Your task to perform on an android device: turn on the 24-hour format for clock Image 0: 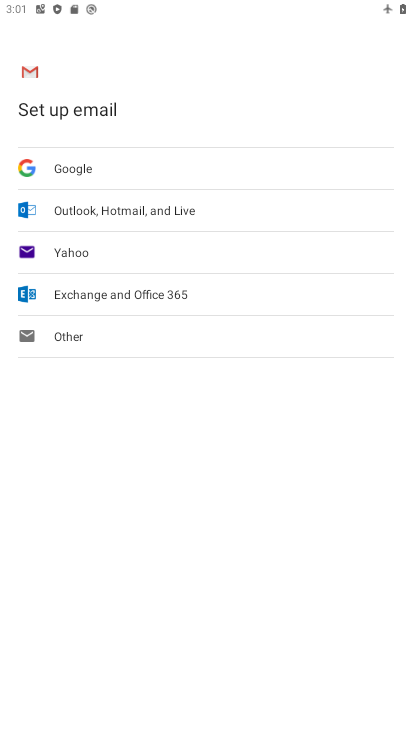
Step 0: press home button
Your task to perform on an android device: turn on the 24-hour format for clock Image 1: 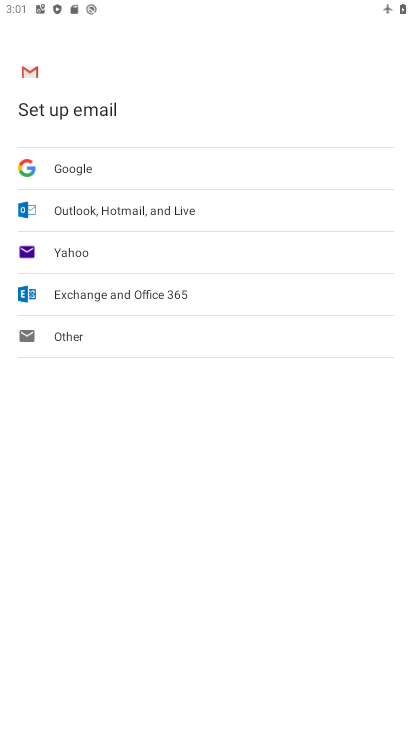
Step 1: press home button
Your task to perform on an android device: turn on the 24-hour format for clock Image 2: 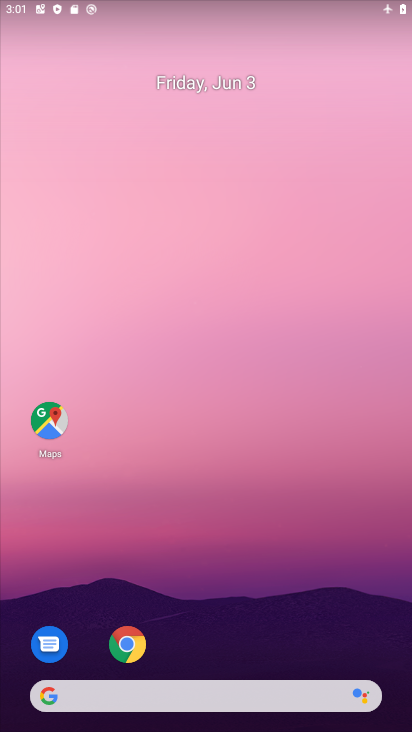
Step 2: drag from (234, 651) to (256, 399)
Your task to perform on an android device: turn on the 24-hour format for clock Image 3: 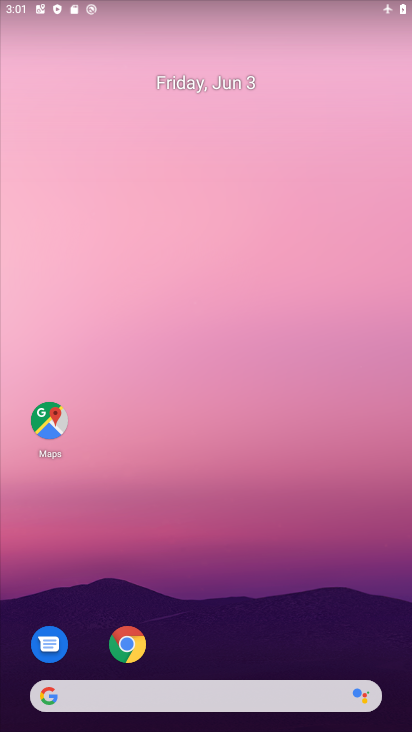
Step 3: drag from (222, 655) to (244, 259)
Your task to perform on an android device: turn on the 24-hour format for clock Image 4: 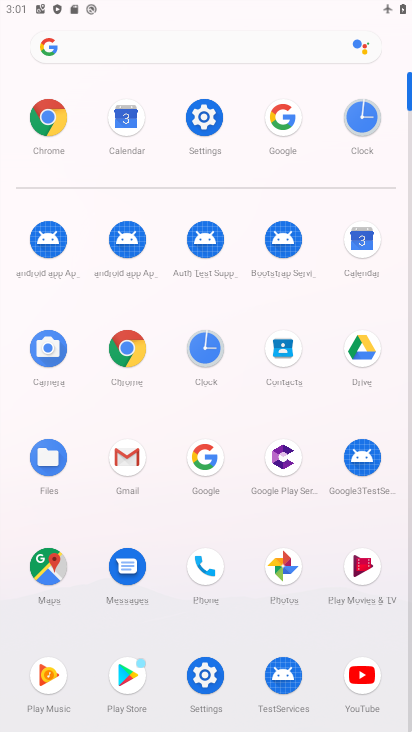
Step 4: click (358, 124)
Your task to perform on an android device: turn on the 24-hour format for clock Image 5: 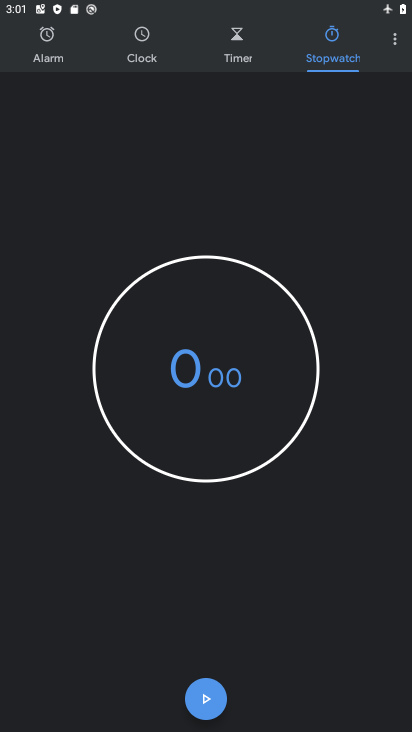
Step 5: click (388, 43)
Your task to perform on an android device: turn on the 24-hour format for clock Image 6: 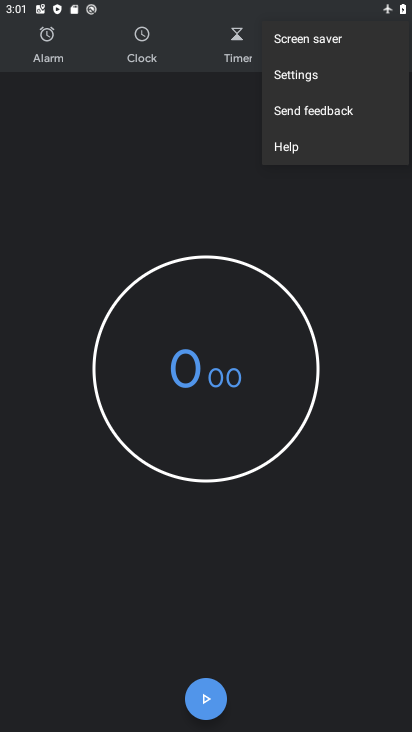
Step 6: click (350, 80)
Your task to perform on an android device: turn on the 24-hour format for clock Image 7: 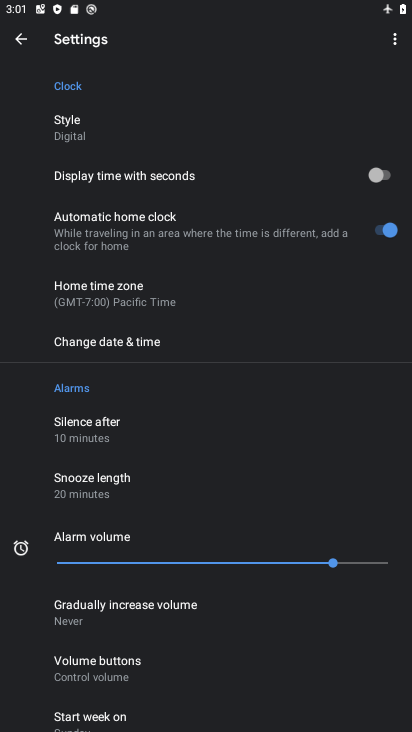
Step 7: click (216, 338)
Your task to perform on an android device: turn on the 24-hour format for clock Image 8: 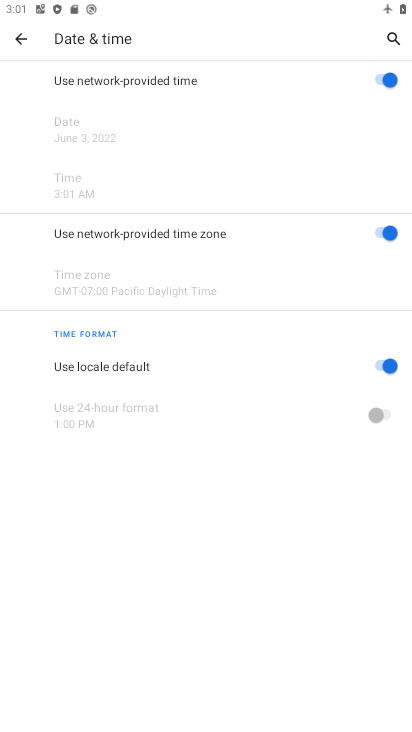
Step 8: drag from (312, 628) to (387, 416)
Your task to perform on an android device: turn on the 24-hour format for clock Image 9: 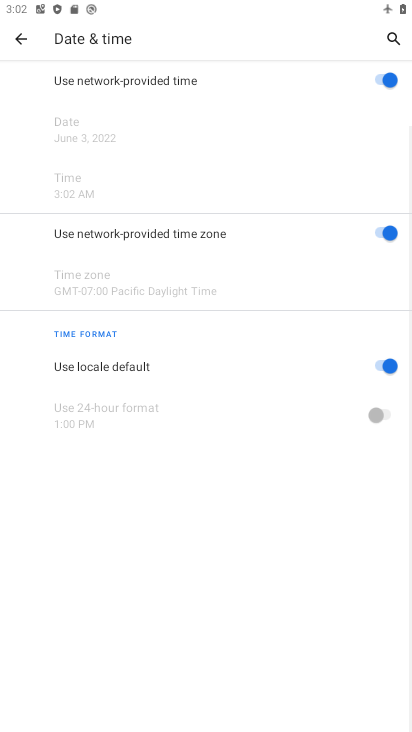
Step 9: click (387, 410)
Your task to perform on an android device: turn on the 24-hour format for clock Image 10: 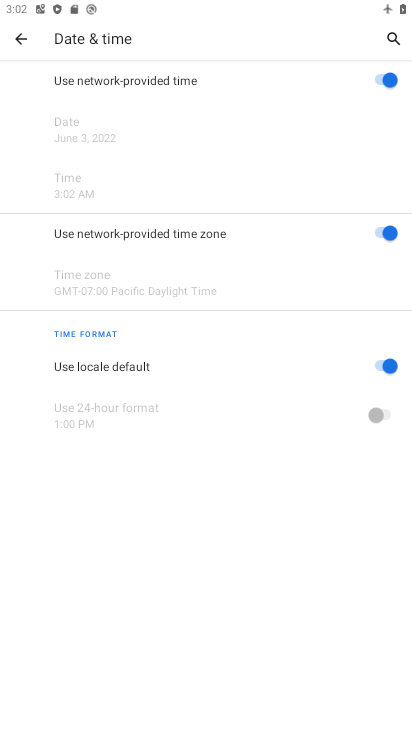
Step 10: click (387, 410)
Your task to perform on an android device: turn on the 24-hour format for clock Image 11: 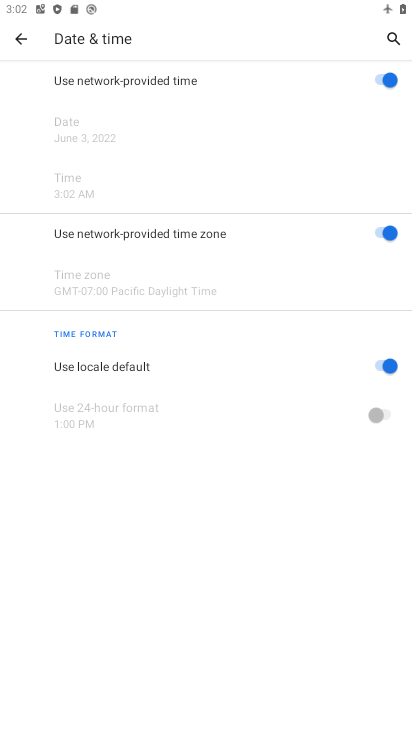
Step 11: click (387, 410)
Your task to perform on an android device: turn on the 24-hour format for clock Image 12: 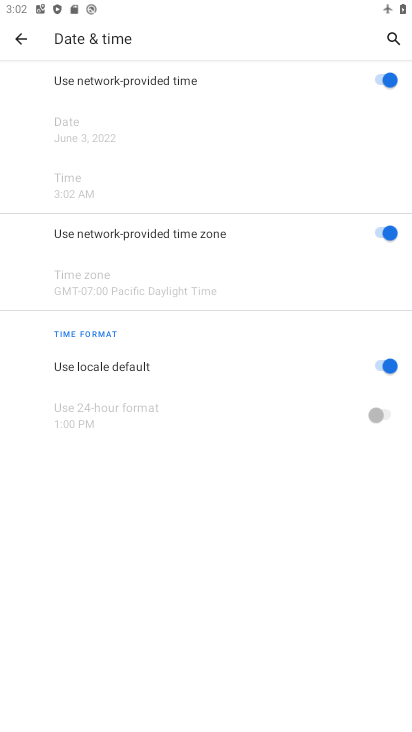
Step 12: click (387, 410)
Your task to perform on an android device: turn on the 24-hour format for clock Image 13: 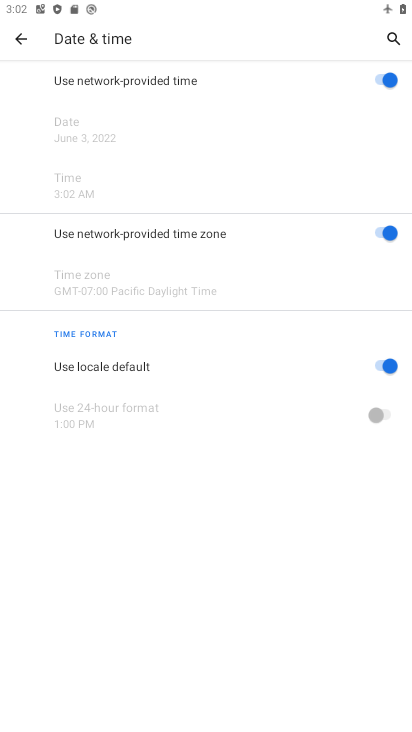
Step 13: click (387, 410)
Your task to perform on an android device: turn on the 24-hour format for clock Image 14: 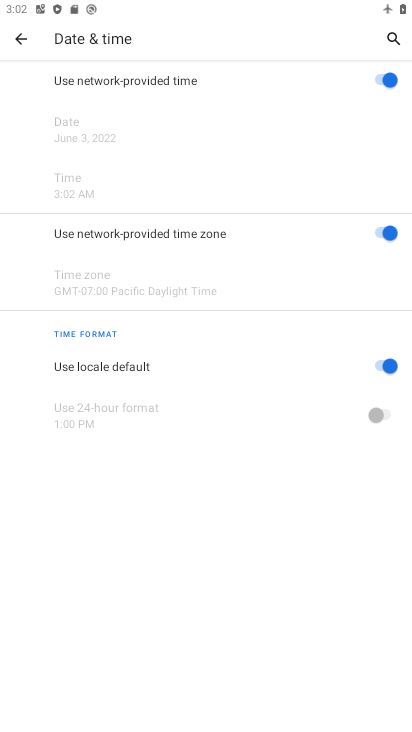
Step 14: click (383, 410)
Your task to perform on an android device: turn on the 24-hour format for clock Image 15: 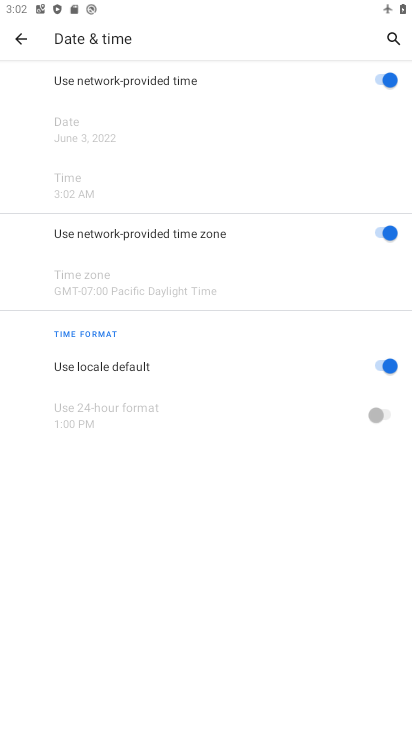
Step 15: click (380, 410)
Your task to perform on an android device: turn on the 24-hour format for clock Image 16: 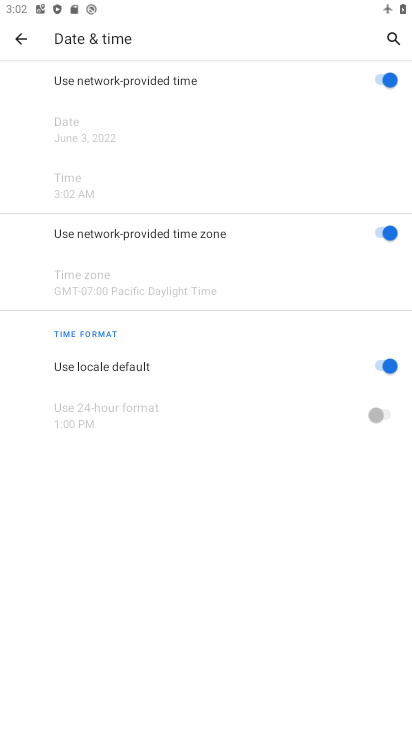
Step 16: click (380, 410)
Your task to perform on an android device: turn on the 24-hour format for clock Image 17: 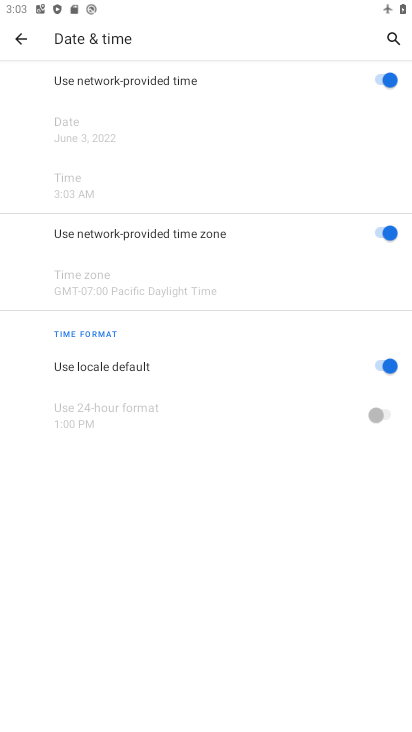
Step 17: click (386, 413)
Your task to perform on an android device: turn on the 24-hour format for clock Image 18: 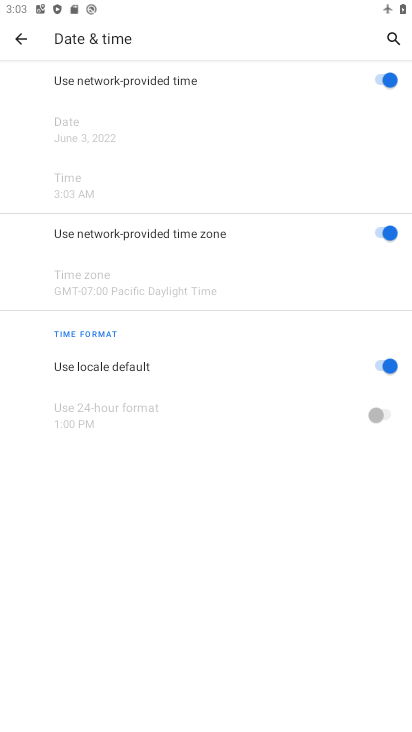
Step 18: click (383, 411)
Your task to perform on an android device: turn on the 24-hour format for clock Image 19: 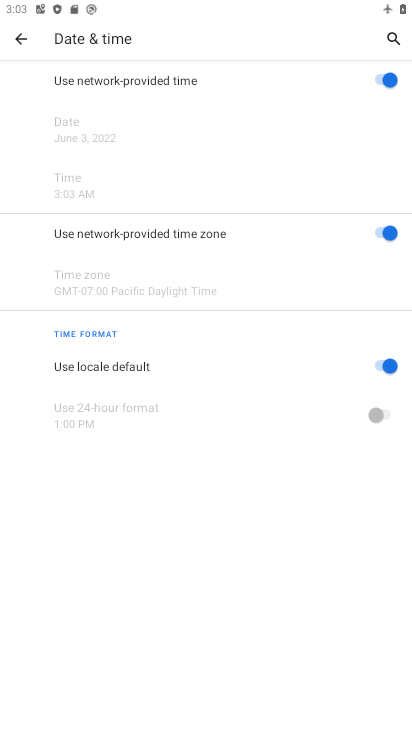
Step 19: click (377, 358)
Your task to perform on an android device: turn on the 24-hour format for clock Image 20: 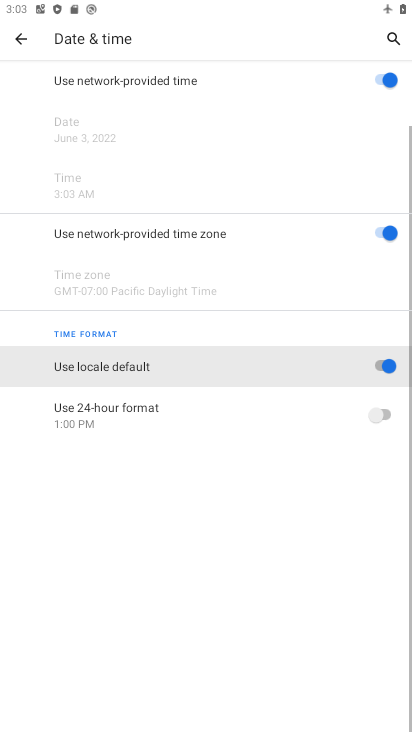
Step 20: click (386, 422)
Your task to perform on an android device: turn on the 24-hour format for clock Image 21: 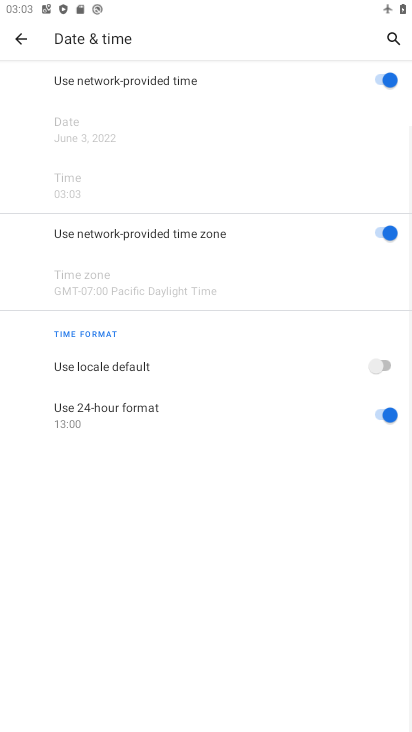
Step 21: task complete